Your task to perform on an android device: open a bookmark in the chrome app Image 0: 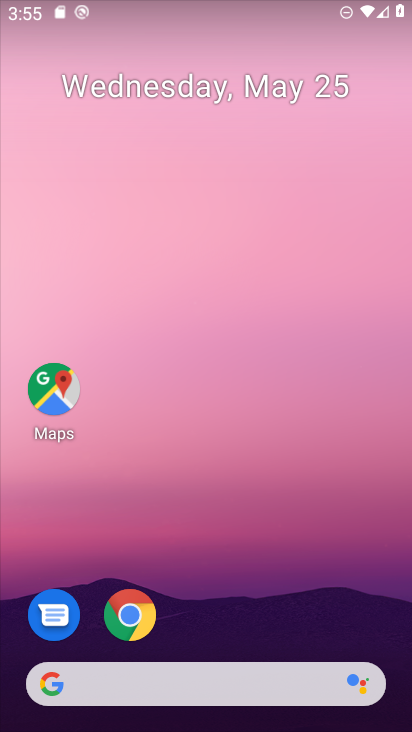
Step 0: click (133, 614)
Your task to perform on an android device: open a bookmark in the chrome app Image 1: 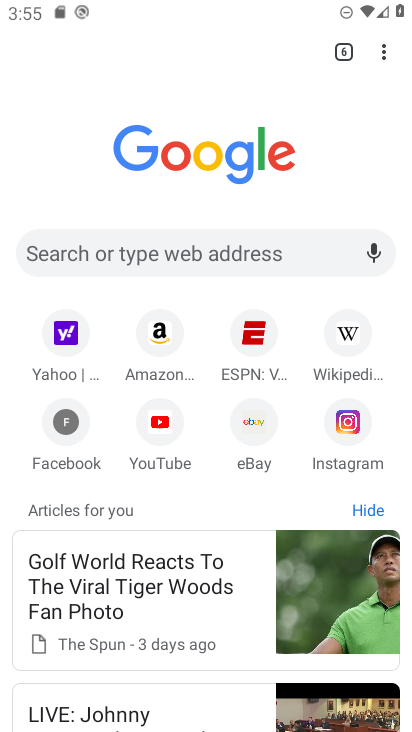
Step 1: click (378, 51)
Your task to perform on an android device: open a bookmark in the chrome app Image 2: 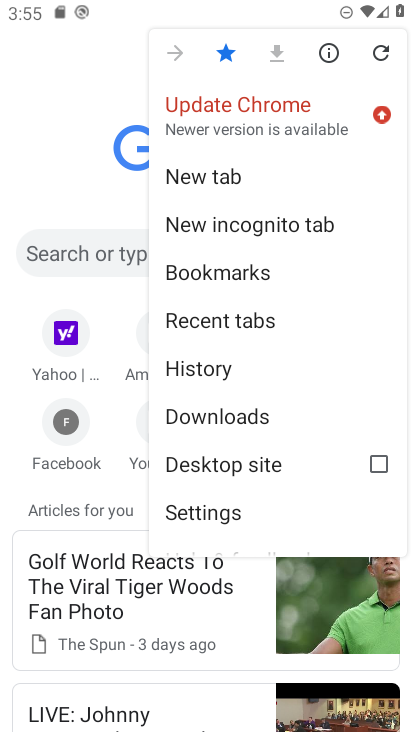
Step 2: click (241, 277)
Your task to perform on an android device: open a bookmark in the chrome app Image 3: 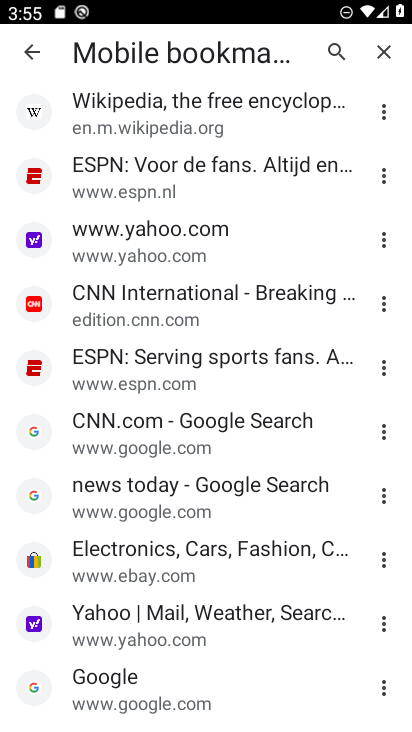
Step 3: click (222, 107)
Your task to perform on an android device: open a bookmark in the chrome app Image 4: 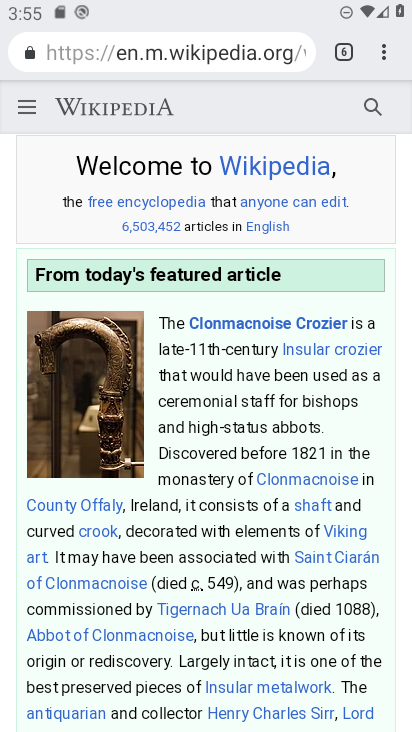
Step 4: task complete